Your task to perform on an android device: Go to privacy settings Image 0: 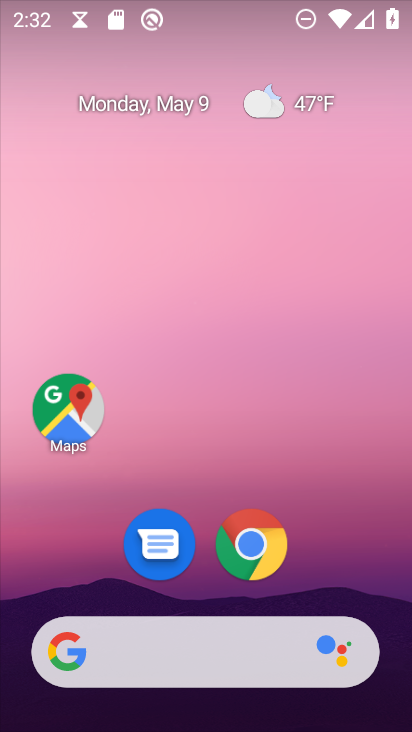
Step 0: drag from (341, 540) to (366, 221)
Your task to perform on an android device: Go to privacy settings Image 1: 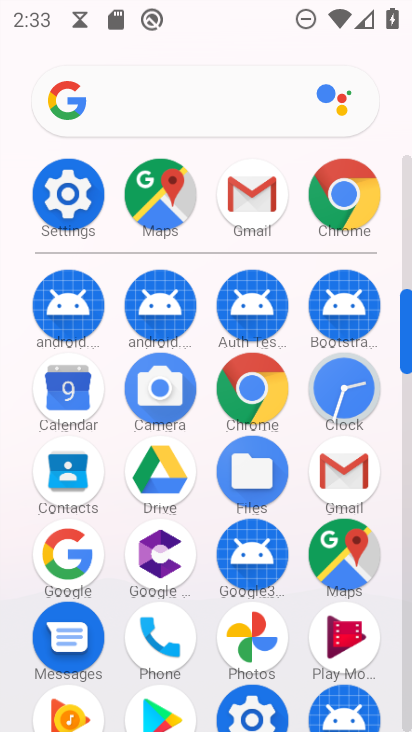
Step 1: click (57, 167)
Your task to perform on an android device: Go to privacy settings Image 2: 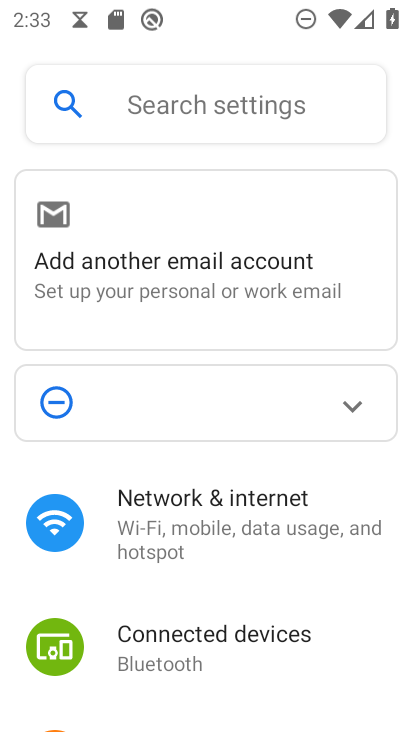
Step 2: drag from (190, 614) to (252, 271)
Your task to perform on an android device: Go to privacy settings Image 3: 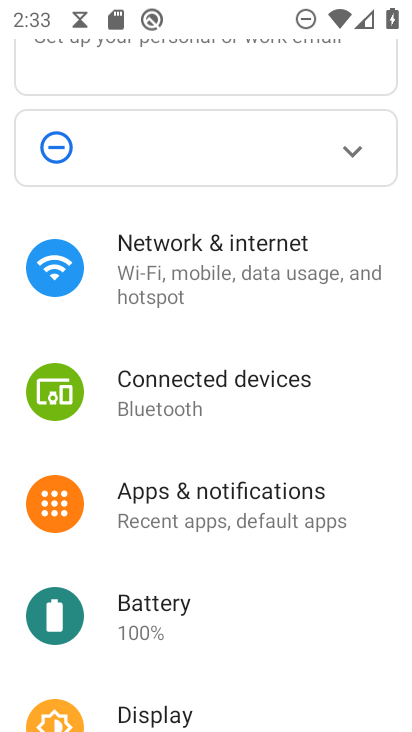
Step 3: drag from (217, 660) to (277, 314)
Your task to perform on an android device: Go to privacy settings Image 4: 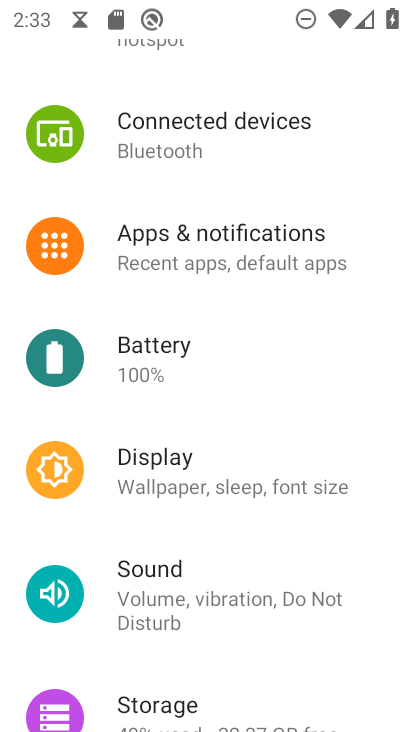
Step 4: drag from (187, 594) to (187, 245)
Your task to perform on an android device: Go to privacy settings Image 5: 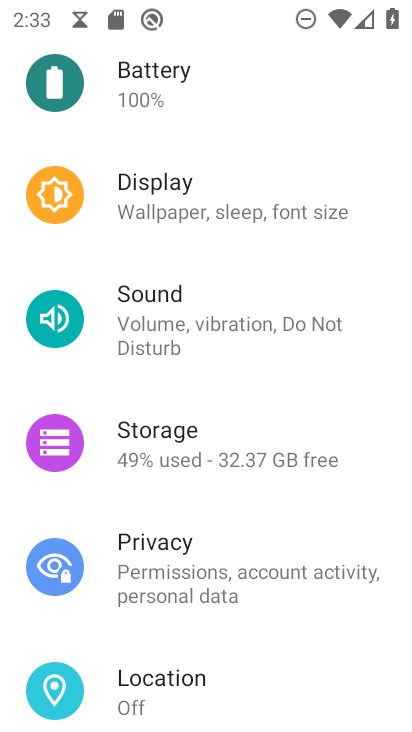
Step 5: click (164, 539)
Your task to perform on an android device: Go to privacy settings Image 6: 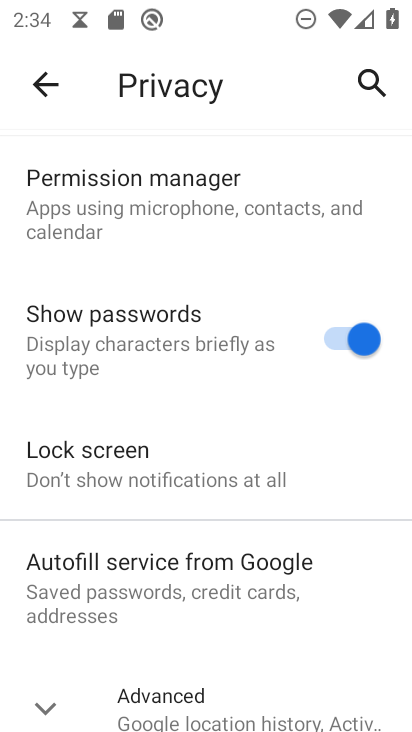
Step 6: task complete